Your task to perform on an android device: Open Android settings Image 0: 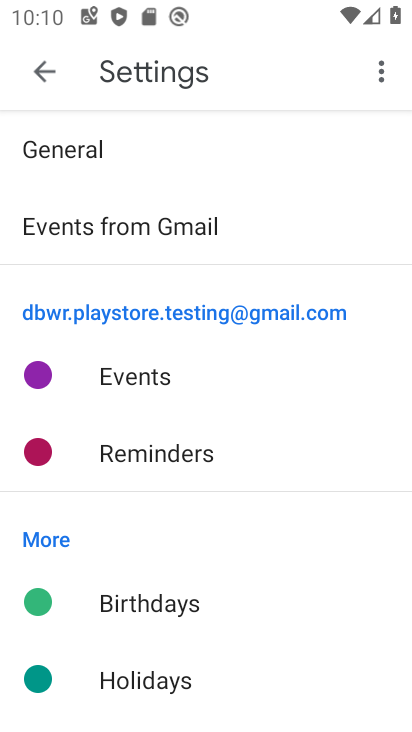
Step 0: press home button
Your task to perform on an android device: Open Android settings Image 1: 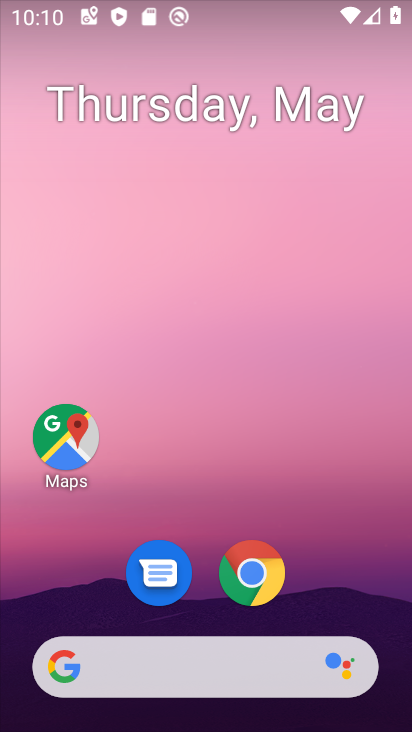
Step 1: drag from (190, 602) to (243, 154)
Your task to perform on an android device: Open Android settings Image 2: 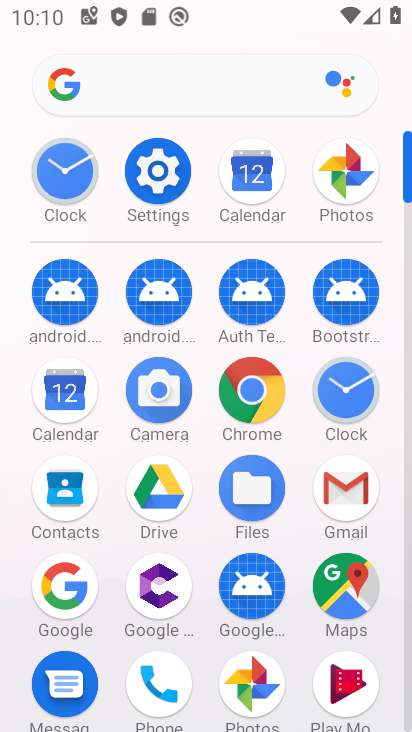
Step 2: click (185, 185)
Your task to perform on an android device: Open Android settings Image 3: 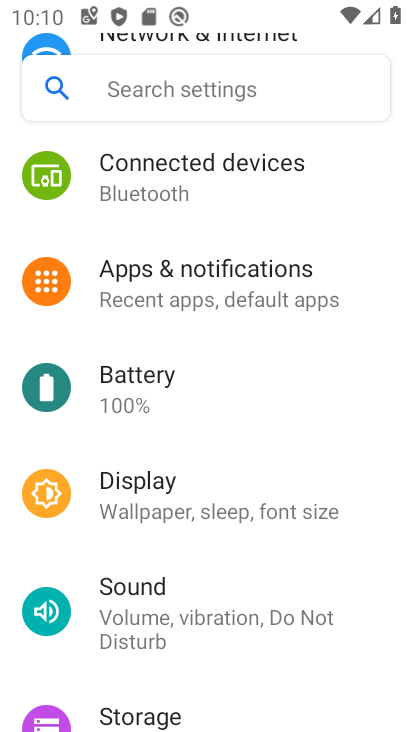
Step 3: task complete